Your task to perform on an android device: set an alarm Image 0: 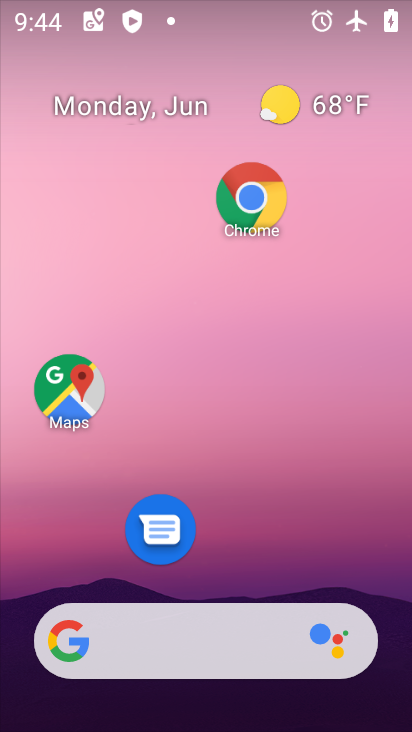
Step 0: drag from (230, 537) to (225, 170)
Your task to perform on an android device: set an alarm Image 1: 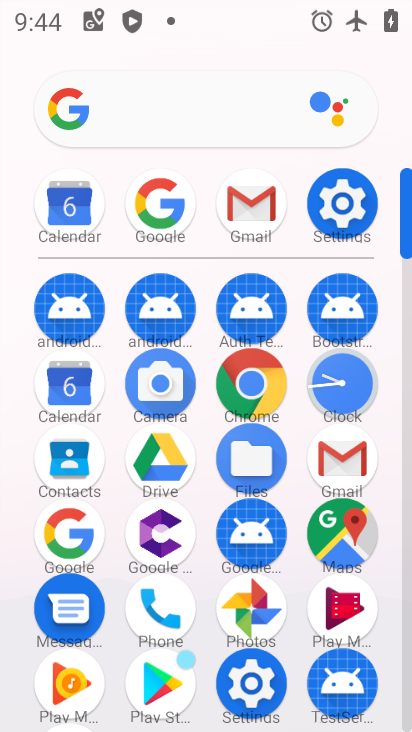
Step 1: click (337, 404)
Your task to perform on an android device: set an alarm Image 2: 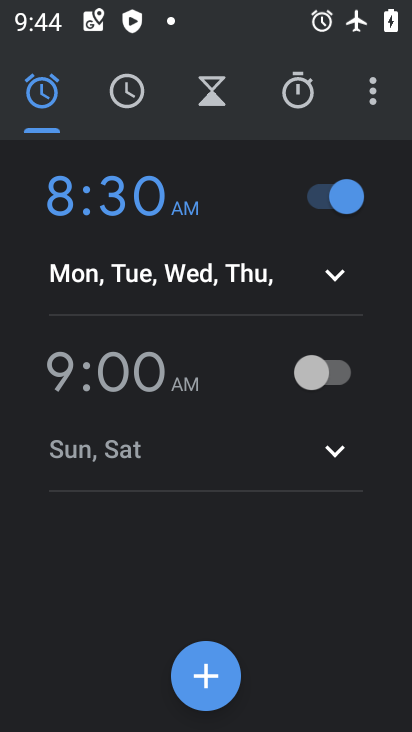
Step 2: task complete